Your task to perform on an android device: check google app version Image 0: 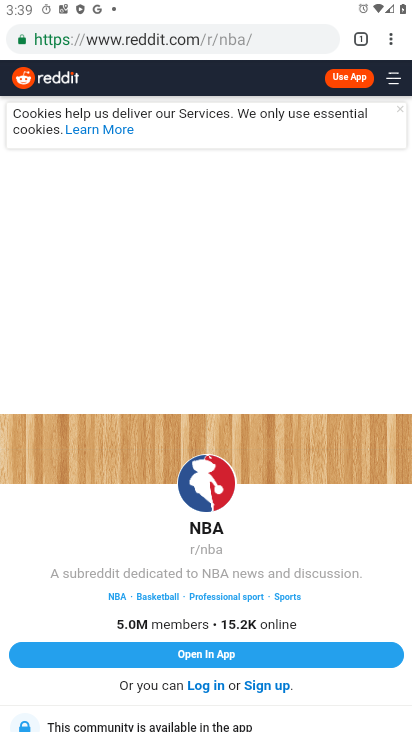
Step 0: press home button
Your task to perform on an android device: check google app version Image 1: 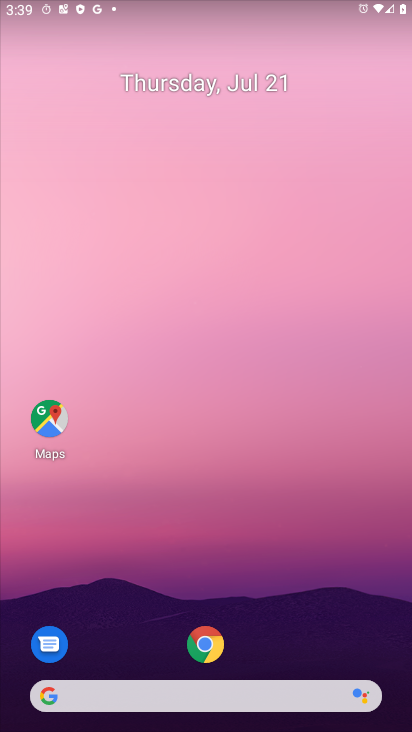
Step 1: drag from (323, 568) to (292, 118)
Your task to perform on an android device: check google app version Image 2: 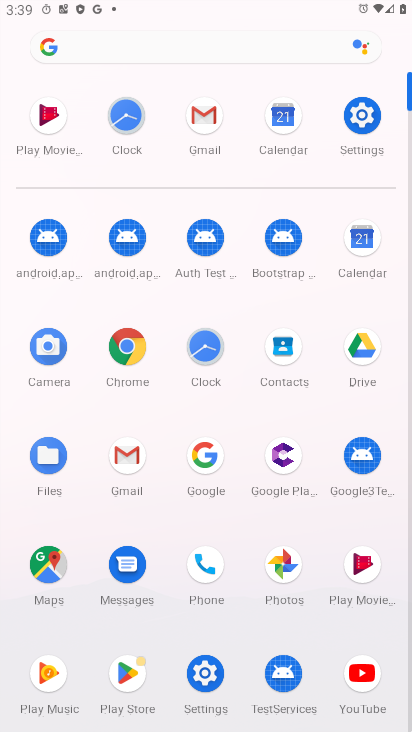
Step 2: click (208, 469)
Your task to perform on an android device: check google app version Image 3: 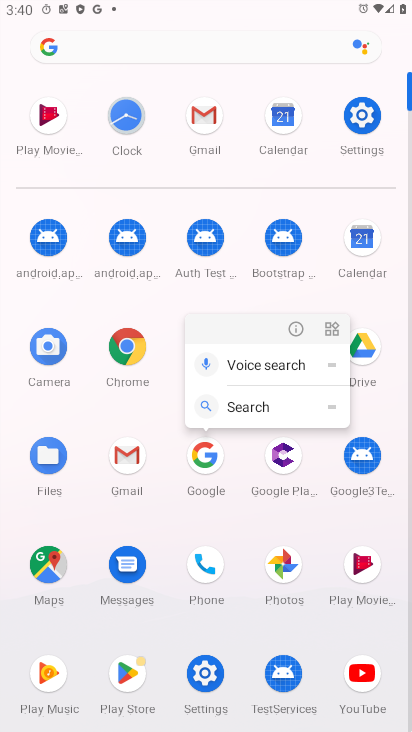
Step 3: click (297, 332)
Your task to perform on an android device: check google app version Image 4: 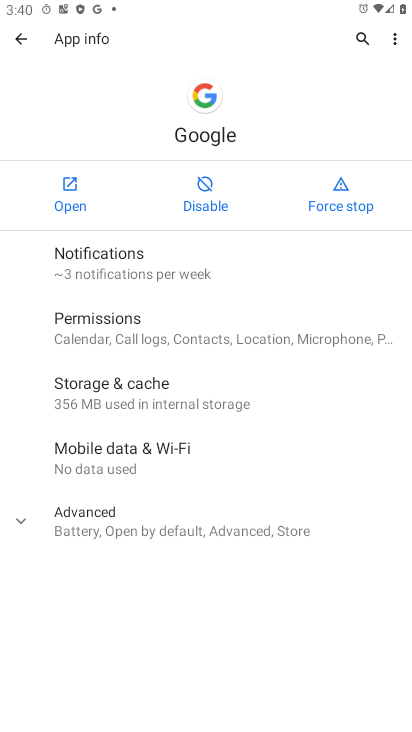
Step 4: click (28, 522)
Your task to perform on an android device: check google app version Image 5: 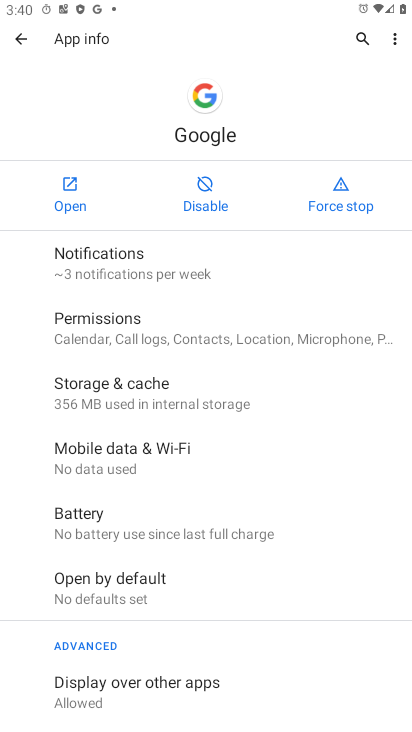
Step 5: task complete